Your task to perform on an android device: change the clock style Image 0: 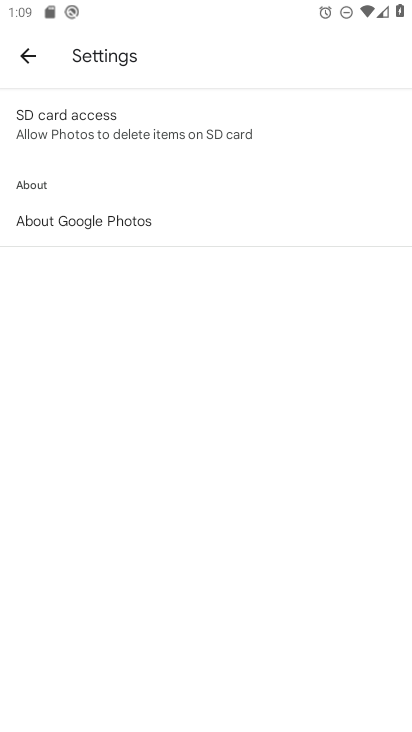
Step 0: press home button
Your task to perform on an android device: change the clock style Image 1: 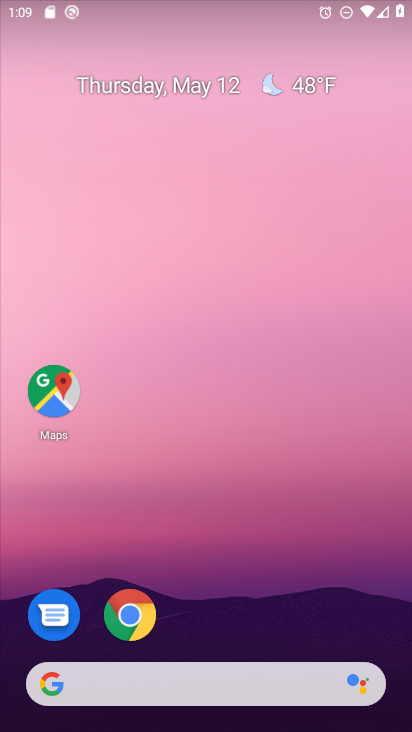
Step 1: drag from (314, 640) to (373, 24)
Your task to perform on an android device: change the clock style Image 2: 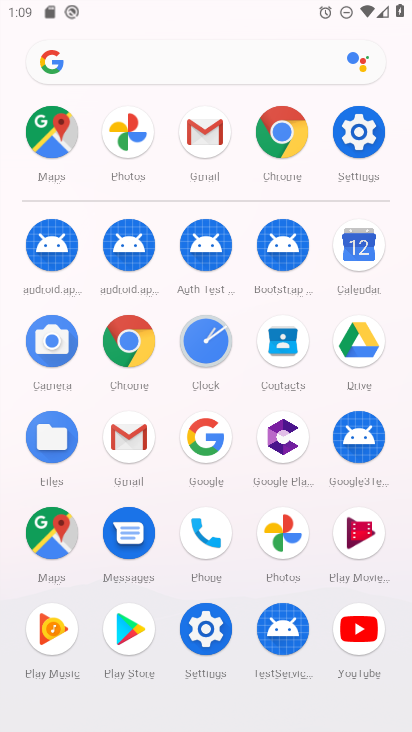
Step 2: click (198, 349)
Your task to perform on an android device: change the clock style Image 3: 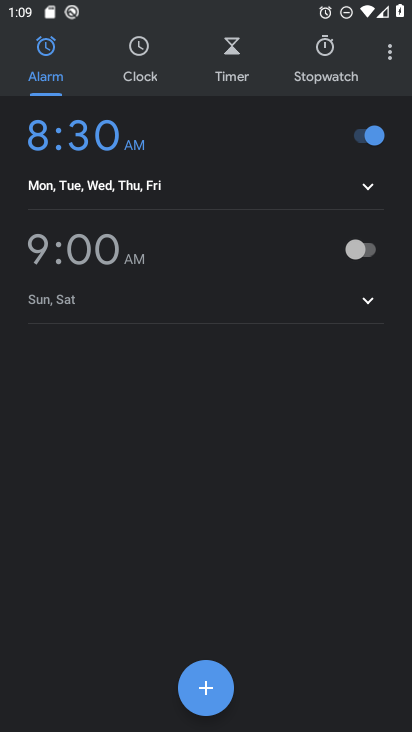
Step 3: click (381, 56)
Your task to perform on an android device: change the clock style Image 4: 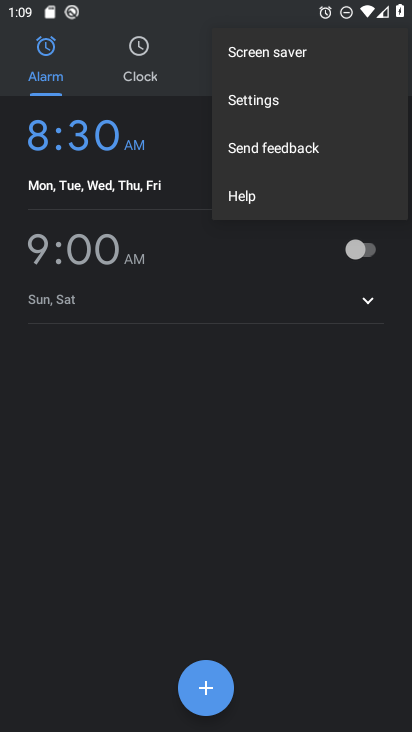
Step 4: click (315, 107)
Your task to perform on an android device: change the clock style Image 5: 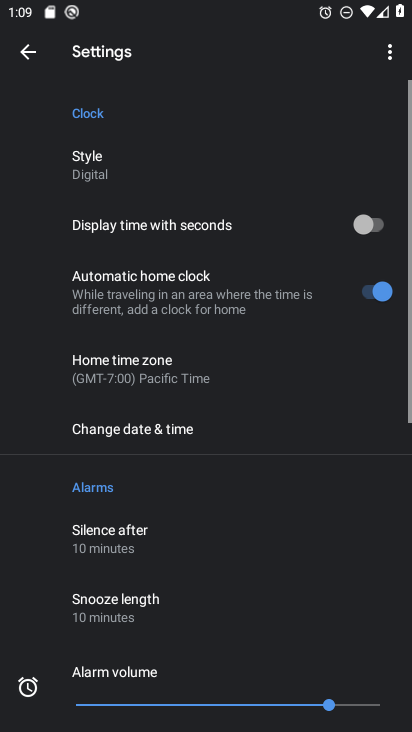
Step 5: click (210, 170)
Your task to perform on an android device: change the clock style Image 6: 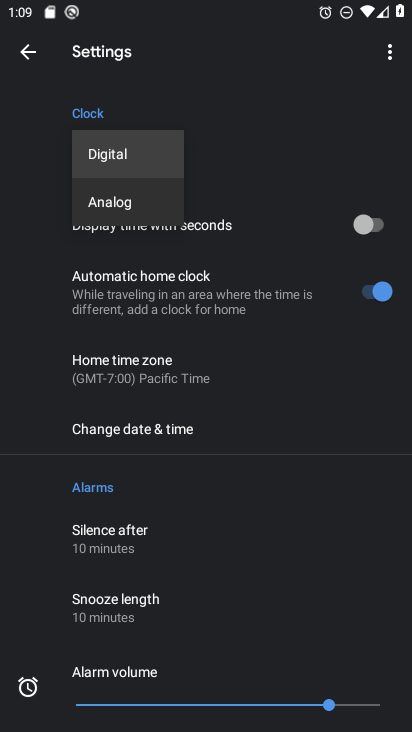
Step 6: click (135, 197)
Your task to perform on an android device: change the clock style Image 7: 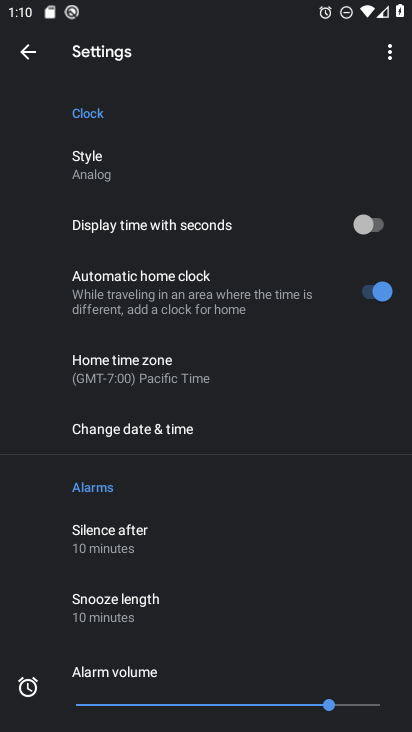
Step 7: task complete